Your task to perform on an android device: turn on the 12-hour format for clock Image 0: 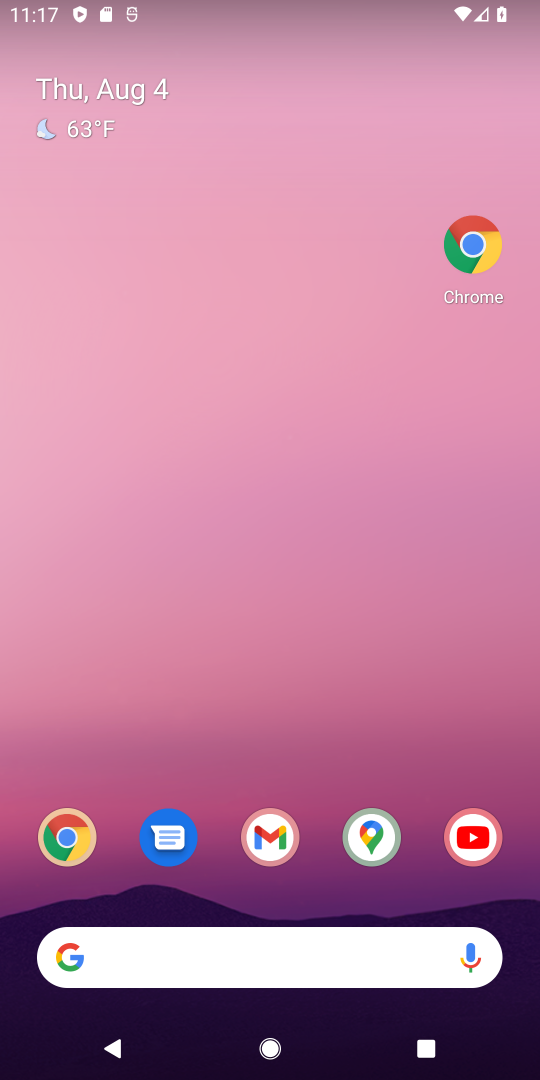
Step 0: drag from (299, 895) to (410, 0)
Your task to perform on an android device: turn on the 12-hour format for clock Image 1: 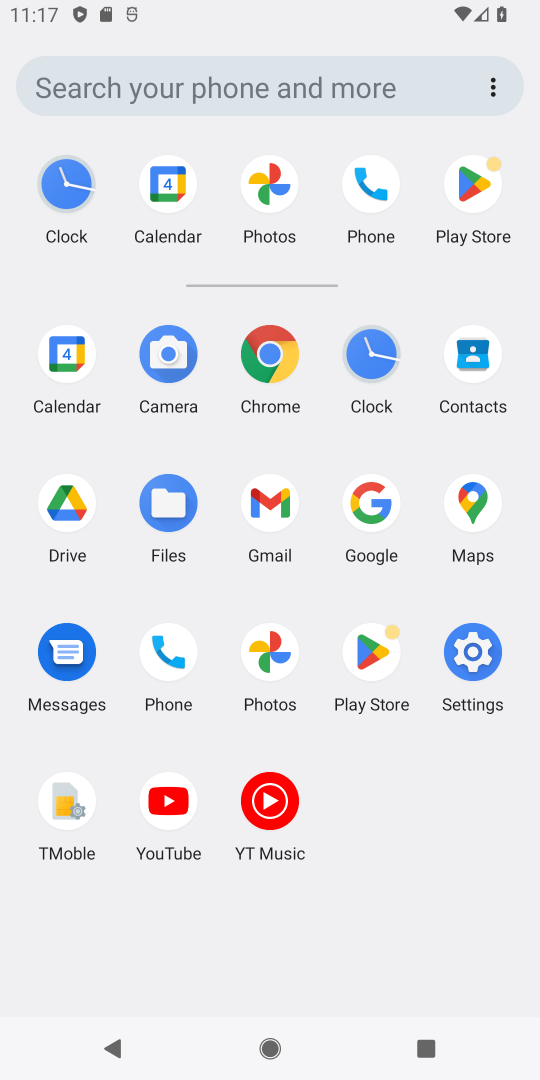
Step 1: click (375, 350)
Your task to perform on an android device: turn on the 12-hour format for clock Image 2: 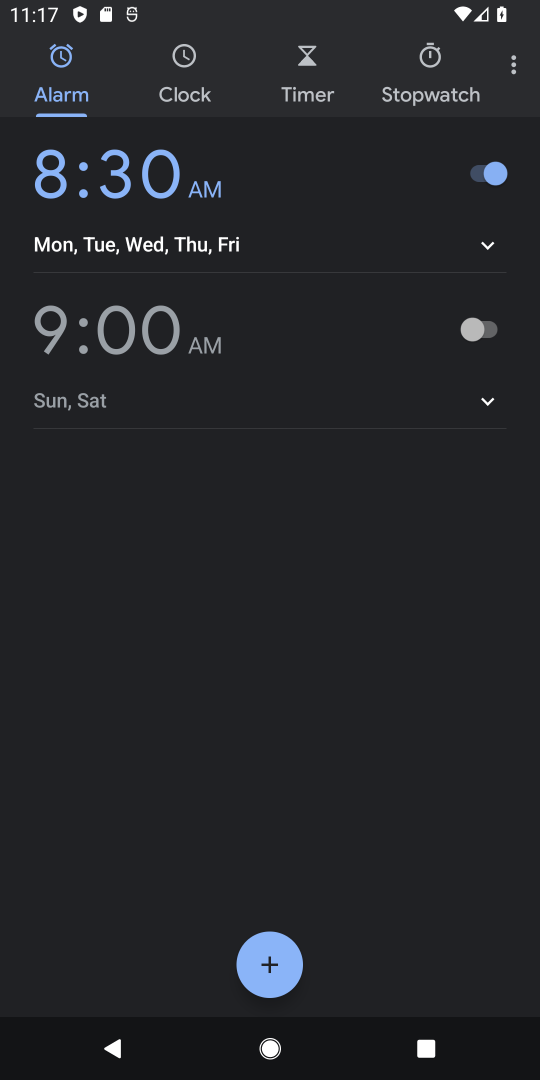
Step 2: click (517, 71)
Your task to perform on an android device: turn on the 12-hour format for clock Image 3: 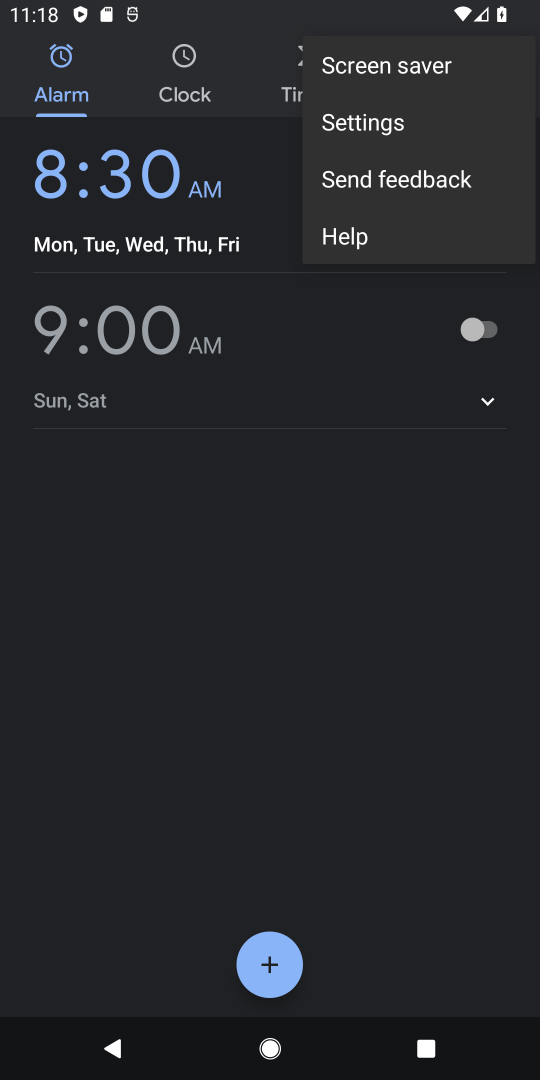
Step 3: click (403, 131)
Your task to perform on an android device: turn on the 12-hour format for clock Image 4: 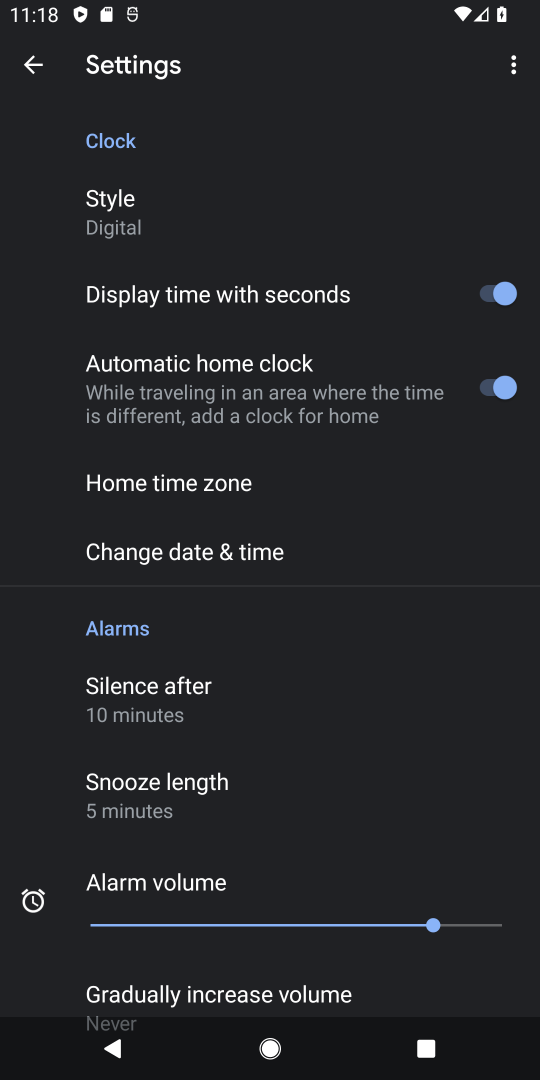
Step 4: click (310, 549)
Your task to perform on an android device: turn on the 12-hour format for clock Image 5: 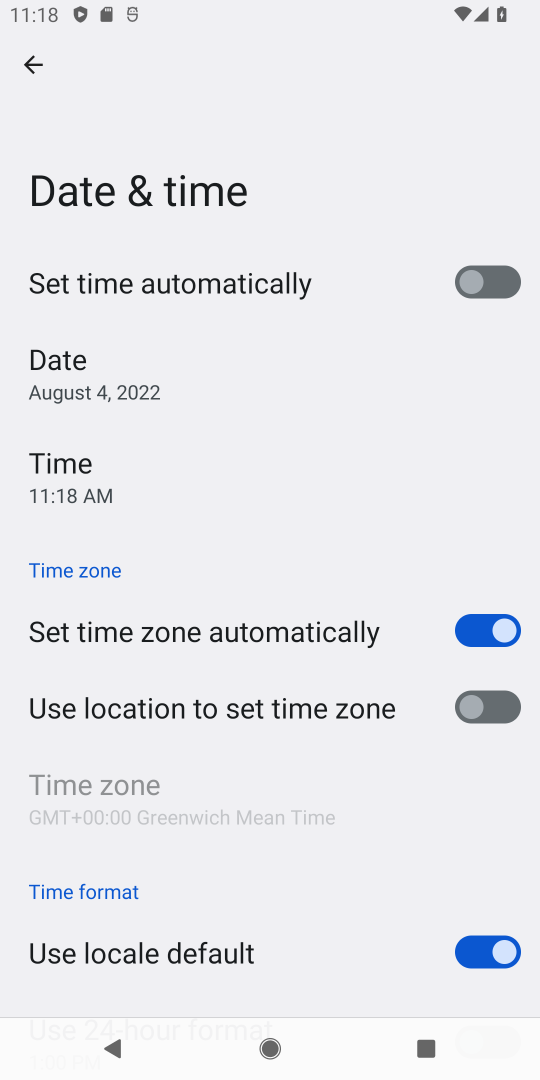
Step 5: task complete